Your task to perform on an android device: turn off data saver in the chrome app Image 0: 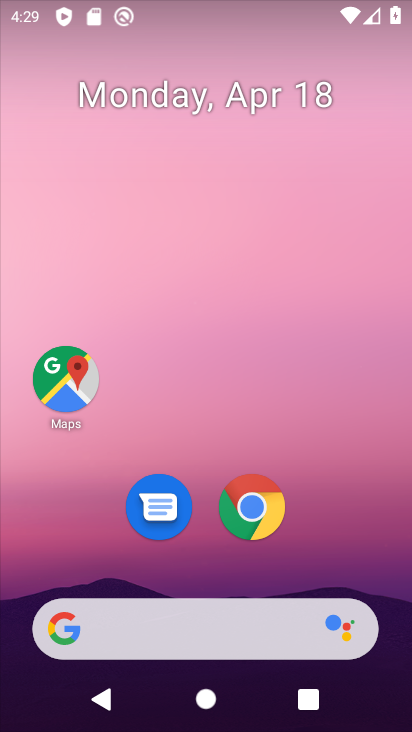
Step 0: drag from (310, 526) to (398, 85)
Your task to perform on an android device: turn off data saver in the chrome app Image 1: 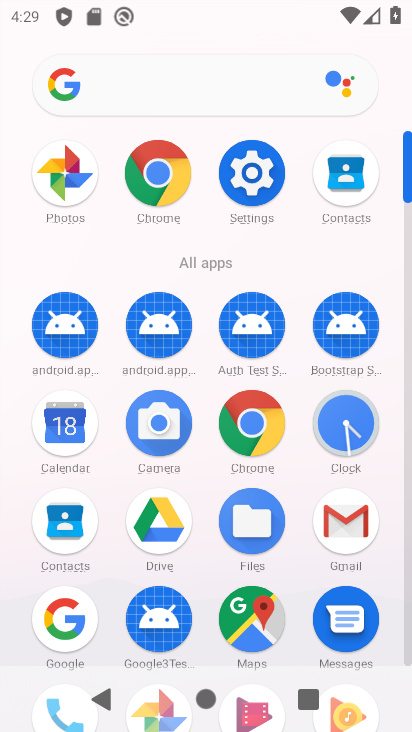
Step 1: click (245, 427)
Your task to perform on an android device: turn off data saver in the chrome app Image 2: 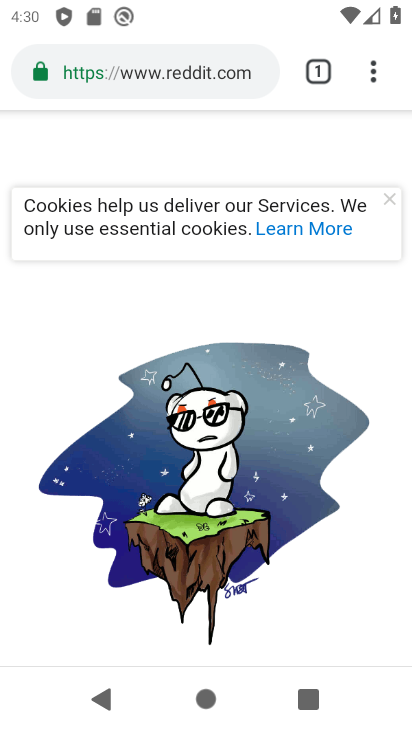
Step 2: click (358, 68)
Your task to perform on an android device: turn off data saver in the chrome app Image 3: 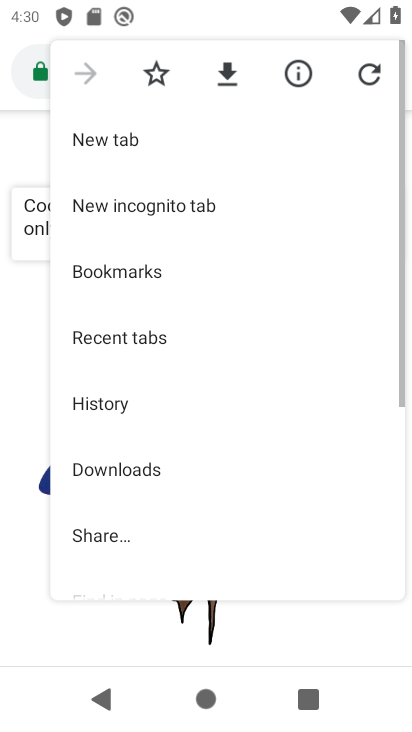
Step 3: drag from (269, 546) to (254, 122)
Your task to perform on an android device: turn off data saver in the chrome app Image 4: 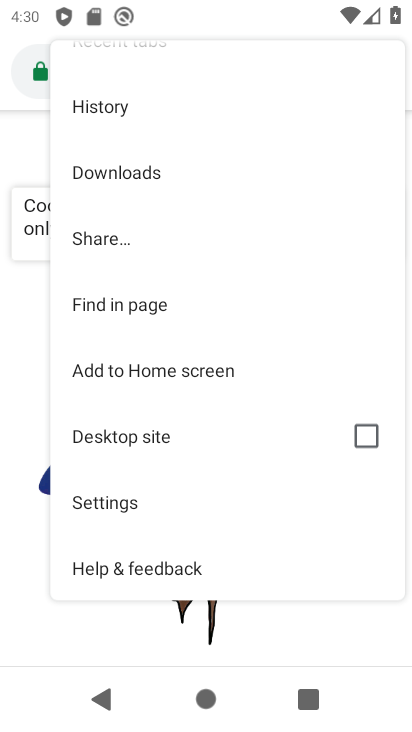
Step 4: click (129, 504)
Your task to perform on an android device: turn off data saver in the chrome app Image 5: 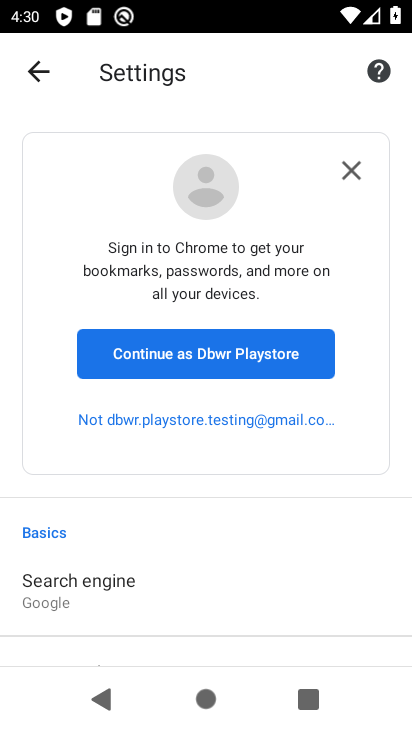
Step 5: drag from (256, 626) to (250, 184)
Your task to perform on an android device: turn off data saver in the chrome app Image 6: 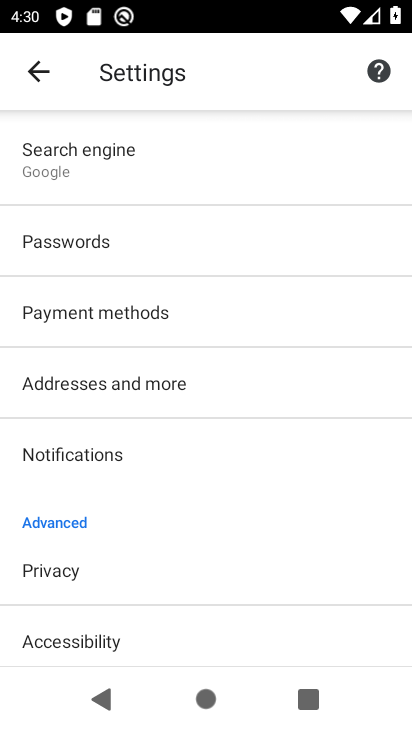
Step 6: drag from (216, 616) to (253, 199)
Your task to perform on an android device: turn off data saver in the chrome app Image 7: 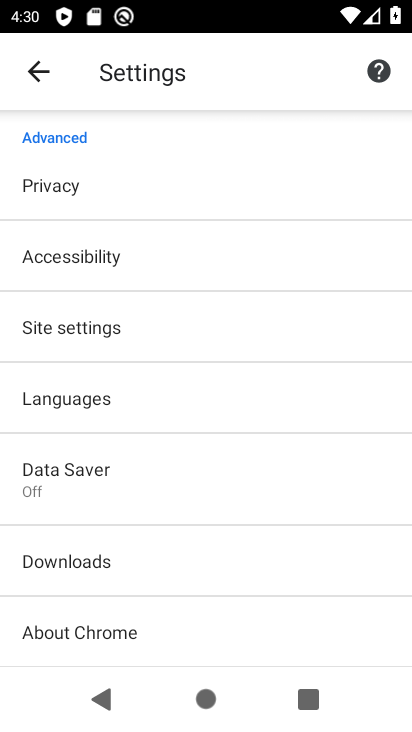
Step 7: click (136, 468)
Your task to perform on an android device: turn off data saver in the chrome app Image 8: 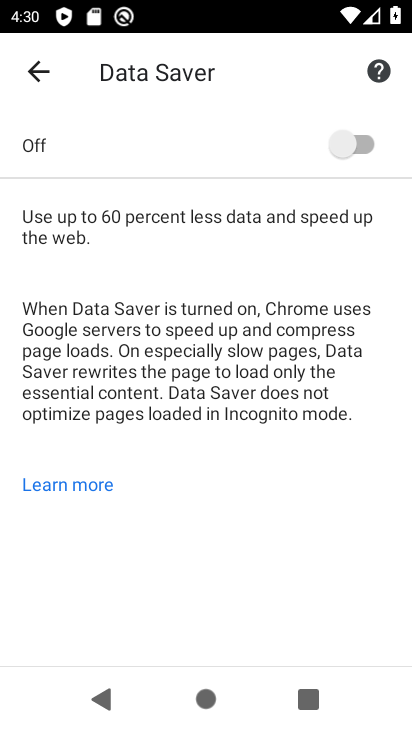
Step 8: task complete